Your task to perform on an android device: Go to eBay Image 0: 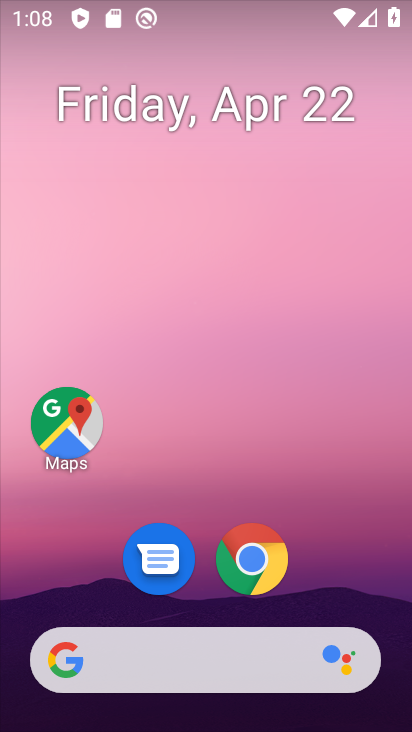
Step 0: drag from (347, 580) to (279, 108)
Your task to perform on an android device: Go to eBay Image 1: 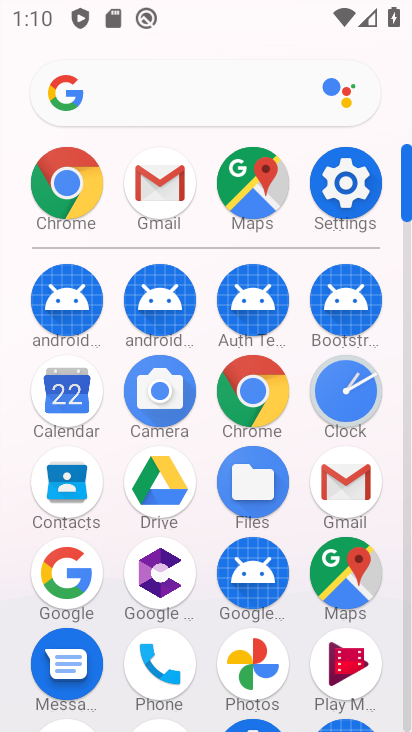
Step 1: click (251, 426)
Your task to perform on an android device: Go to eBay Image 2: 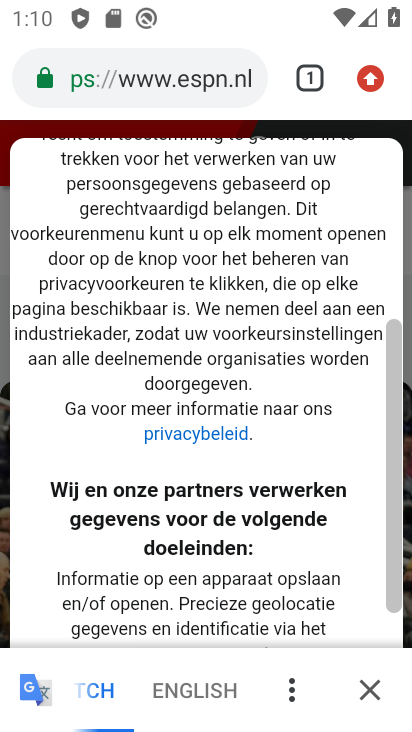
Step 2: press back button
Your task to perform on an android device: Go to eBay Image 3: 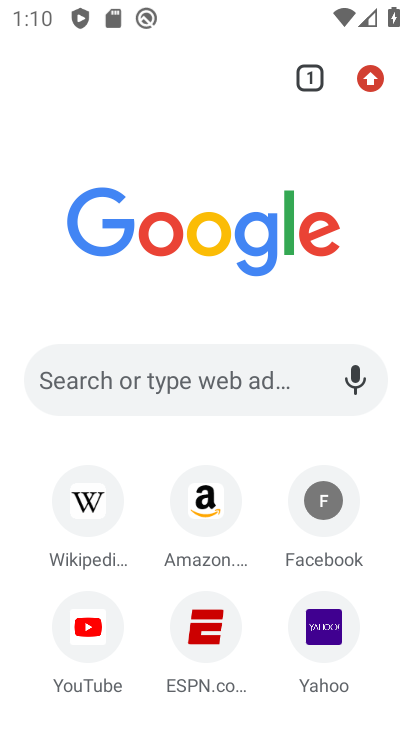
Step 3: click (192, 363)
Your task to perform on an android device: Go to eBay Image 4: 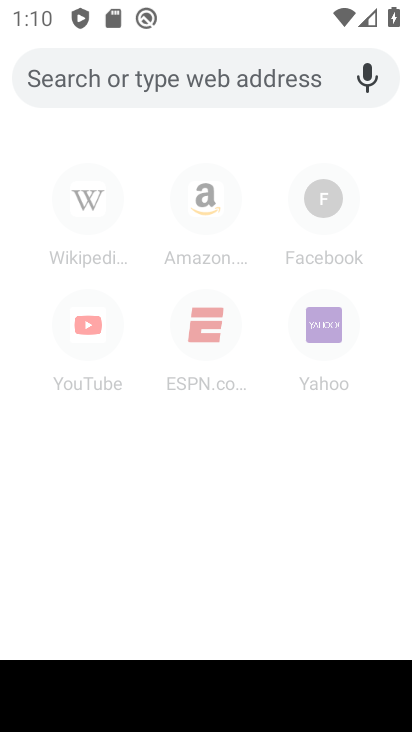
Step 4: type "ebay"
Your task to perform on an android device: Go to eBay Image 5: 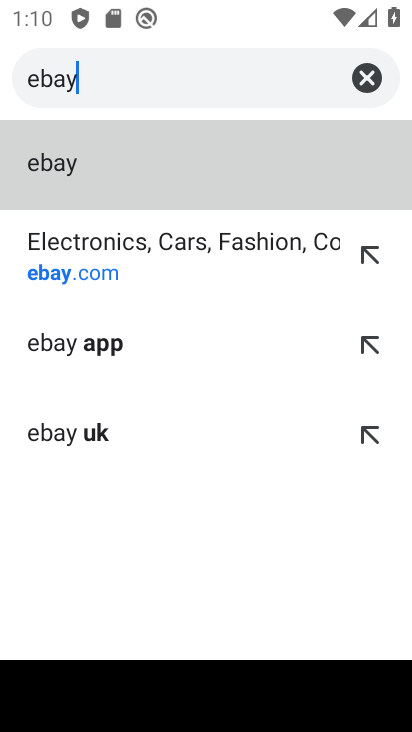
Step 5: click (186, 146)
Your task to perform on an android device: Go to eBay Image 6: 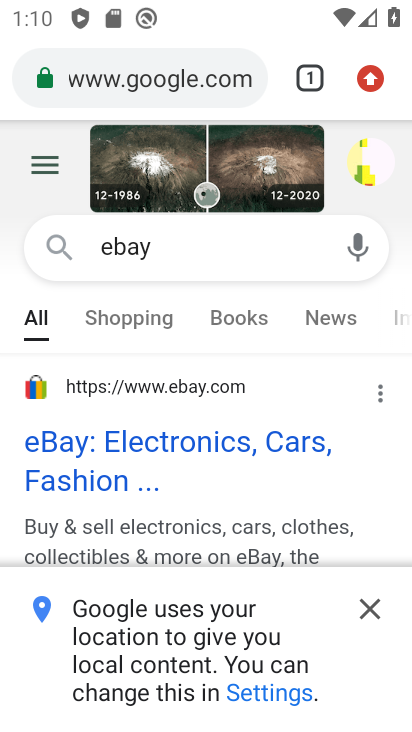
Step 6: task complete